Your task to perform on an android device: toggle translation in the chrome app Image 0: 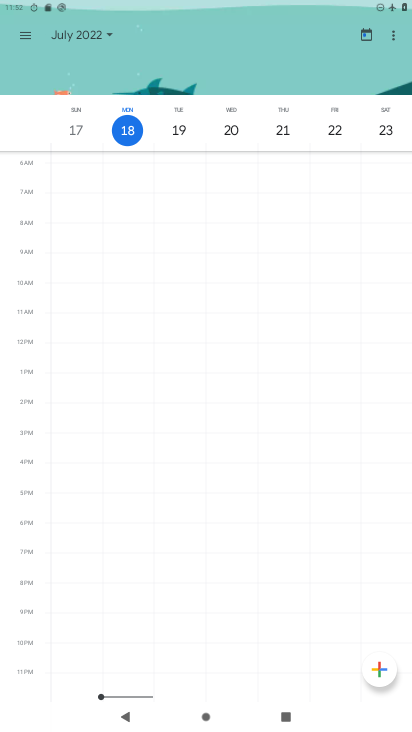
Step 0: press home button
Your task to perform on an android device: toggle translation in the chrome app Image 1: 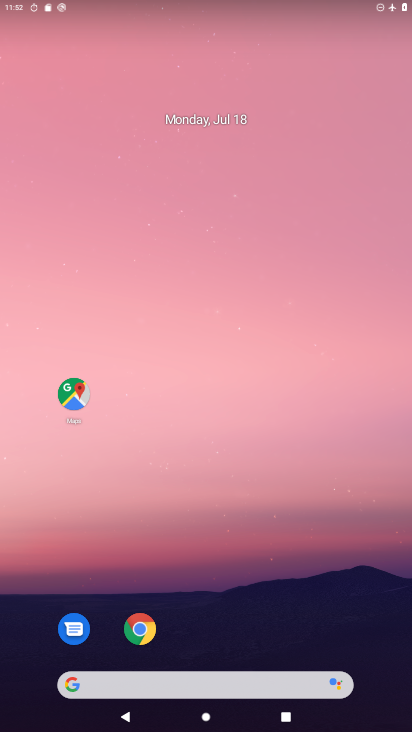
Step 1: drag from (260, 394) to (205, 1)
Your task to perform on an android device: toggle translation in the chrome app Image 2: 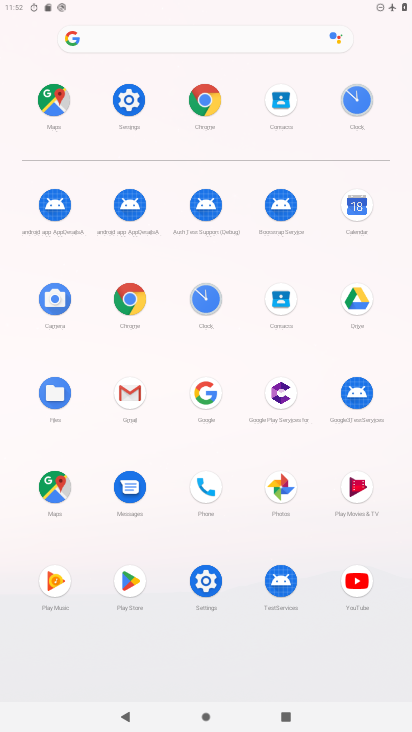
Step 2: click (203, 102)
Your task to perform on an android device: toggle translation in the chrome app Image 3: 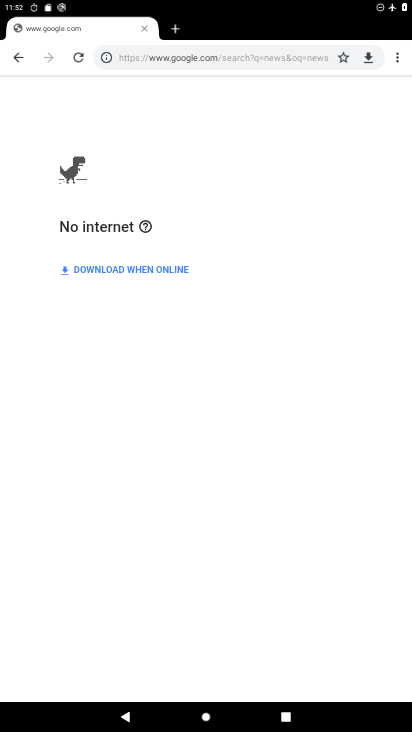
Step 3: drag from (396, 53) to (288, 394)
Your task to perform on an android device: toggle translation in the chrome app Image 4: 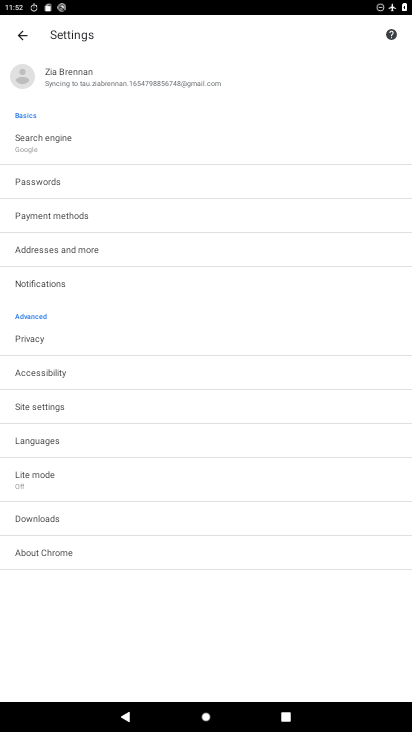
Step 4: click (44, 446)
Your task to perform on an android device: toggle translation in the chrome app Image 5: 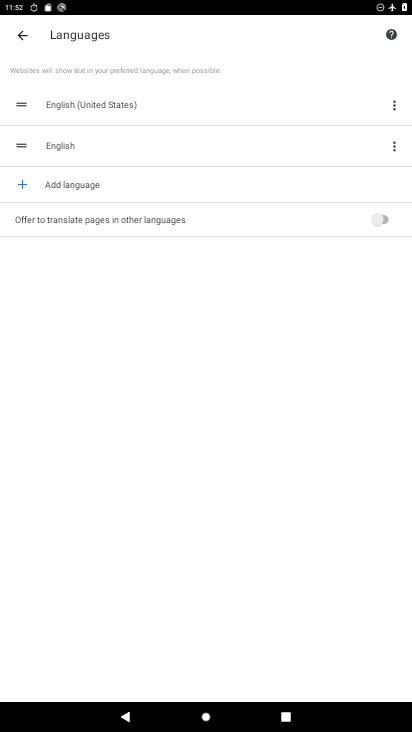
Step 5: click (379, 223)
Your task to perform on an android device: toggle translation in the chrome app Image 6: 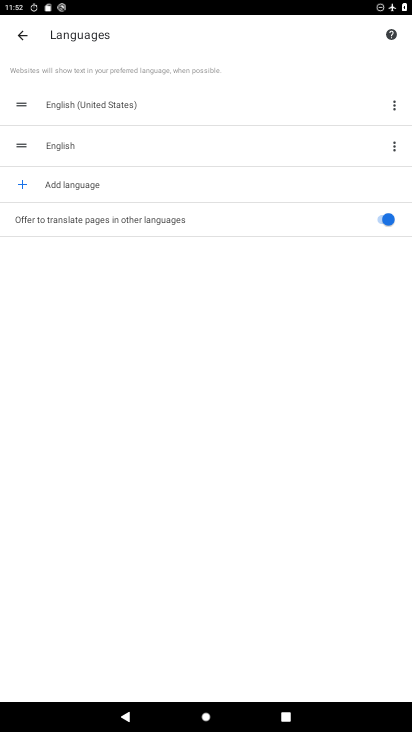
Step 6: task complete